Your task to perform on an android device: turn on javascript in the chrome app Image 0: 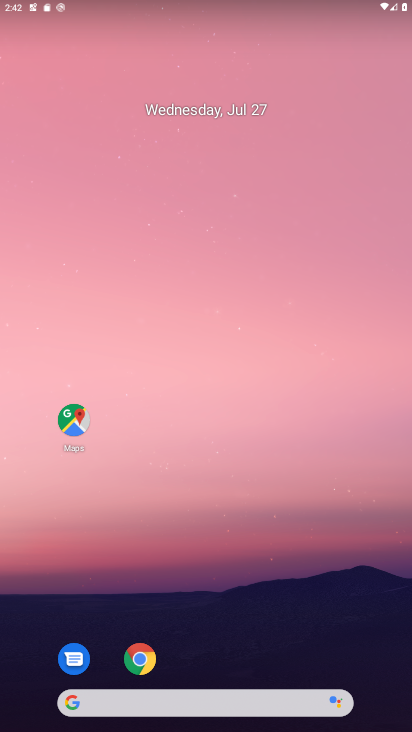
Step 0: drag from (256, 657) to (206, 270)
Your task to perform on an android device: turn on javascript in the chrome app Image 1: 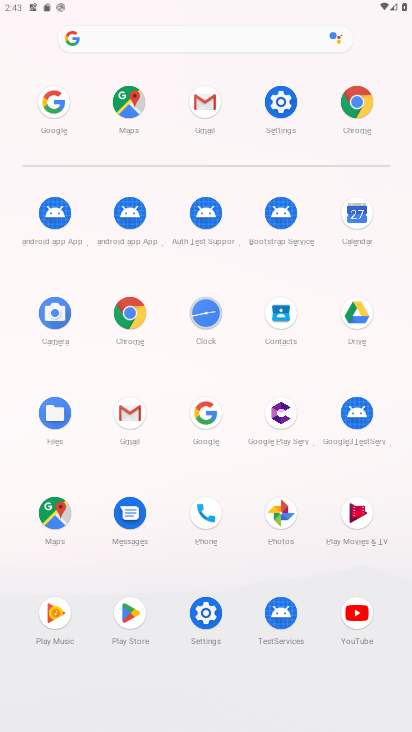
Step 1: click (127, 322)
Your task to perform on an android device: turn on javascript in the chrome app Image 2: 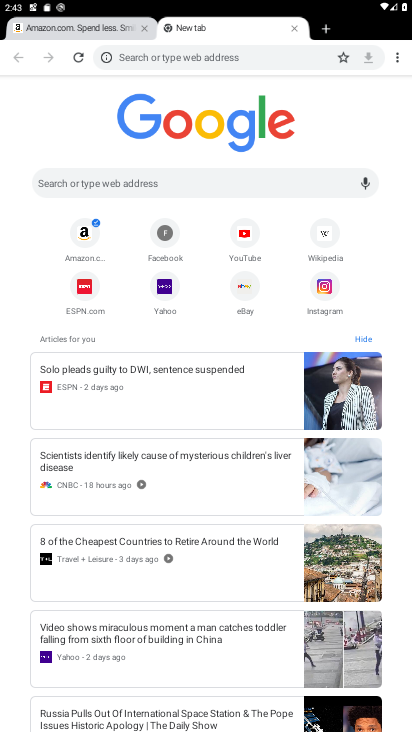
Step 2: drag from (400, 51) to (254, 259)
Your task to perform on an android device: turn on javascript in the chrome app Image 3: 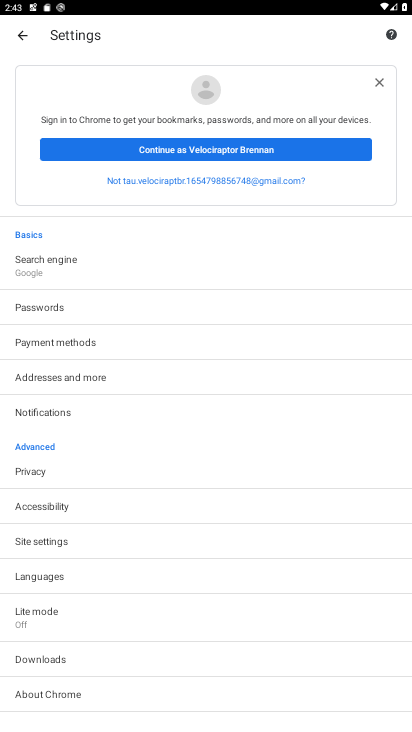
Step 3: click (59, 541)
Your task to perform on an android device: turn on javascript in the chrome app Image 4: 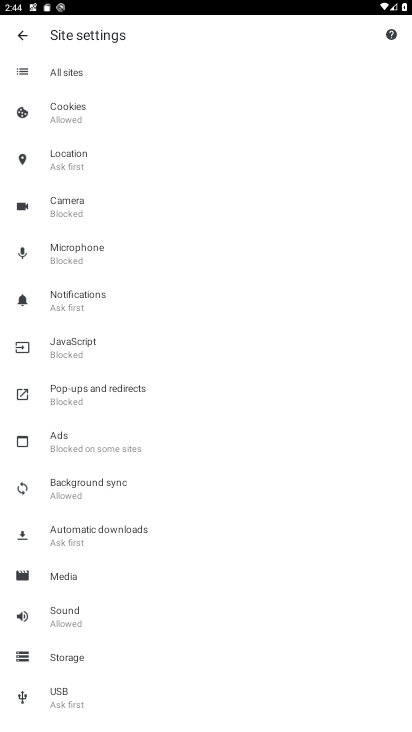
Step 4: click (61, 346)
Your task to perform on an android device: turn on javascript in the chrome app Image 5: 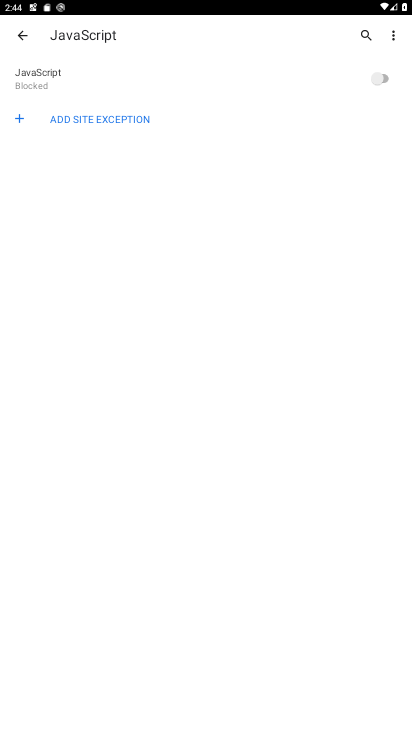
Step 5: click (375, 74)
Your task to perform on an android device: turn on javascript in the chrome app Image 6: 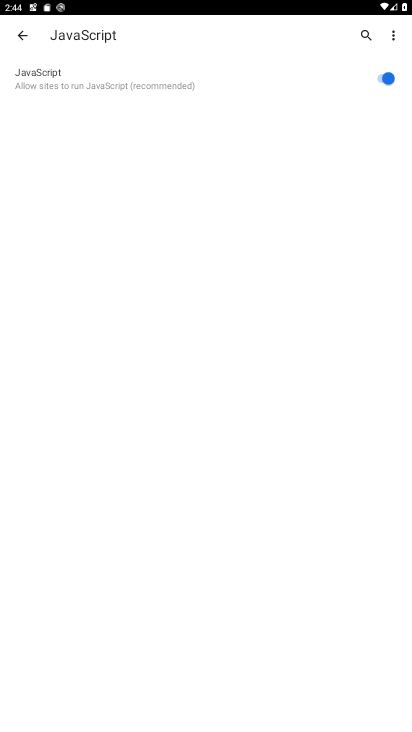
Step 6: task complete